Your task to perform on an android device: check out phone information Image 0: 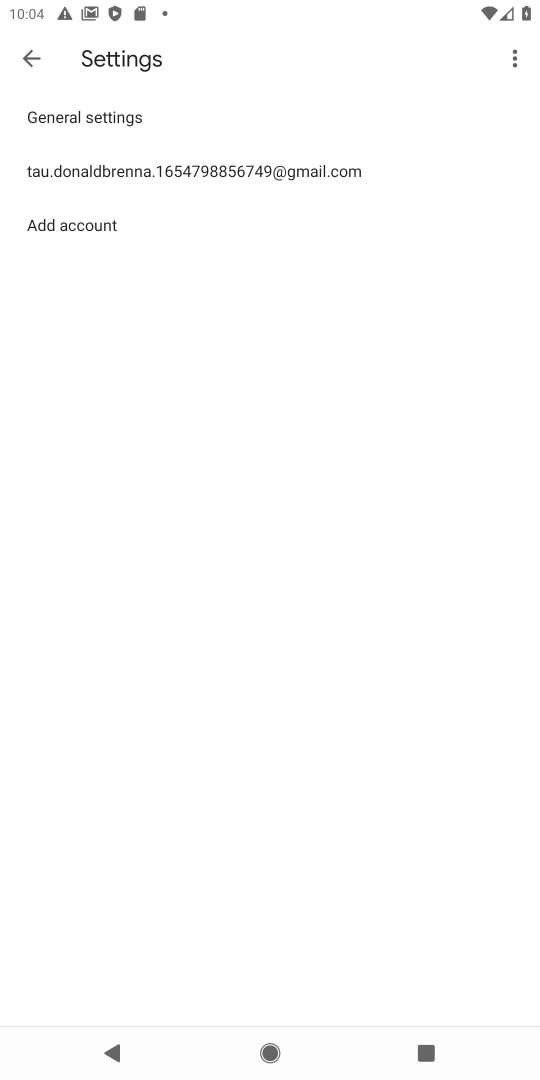
Step 0: press home button
Your task to perform on an android device: check out phone information Image 1: 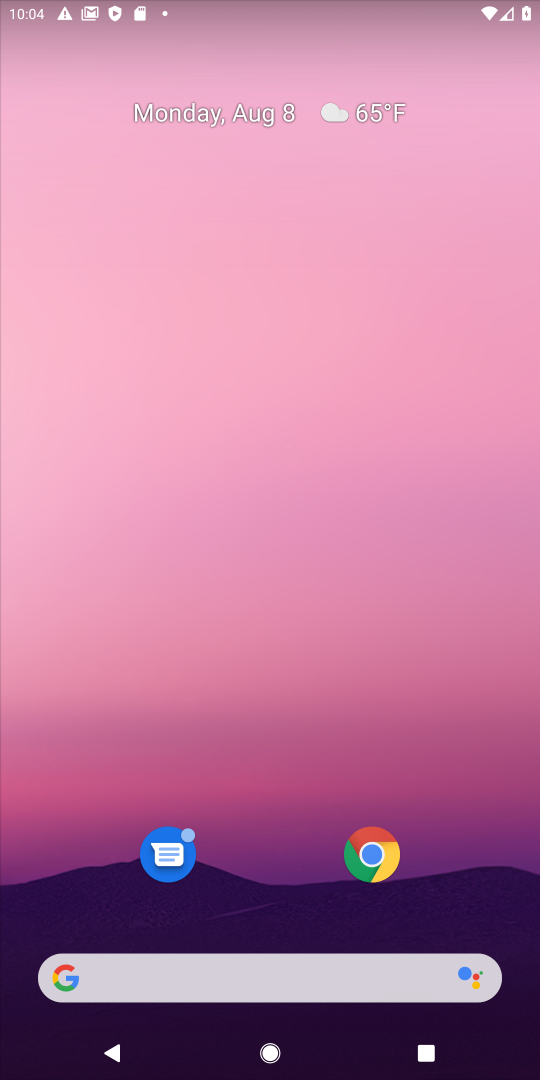
Step 1: drag from (236, 890) to (275, 18)
Your task to perform on an android device: check out phone information Image 2: 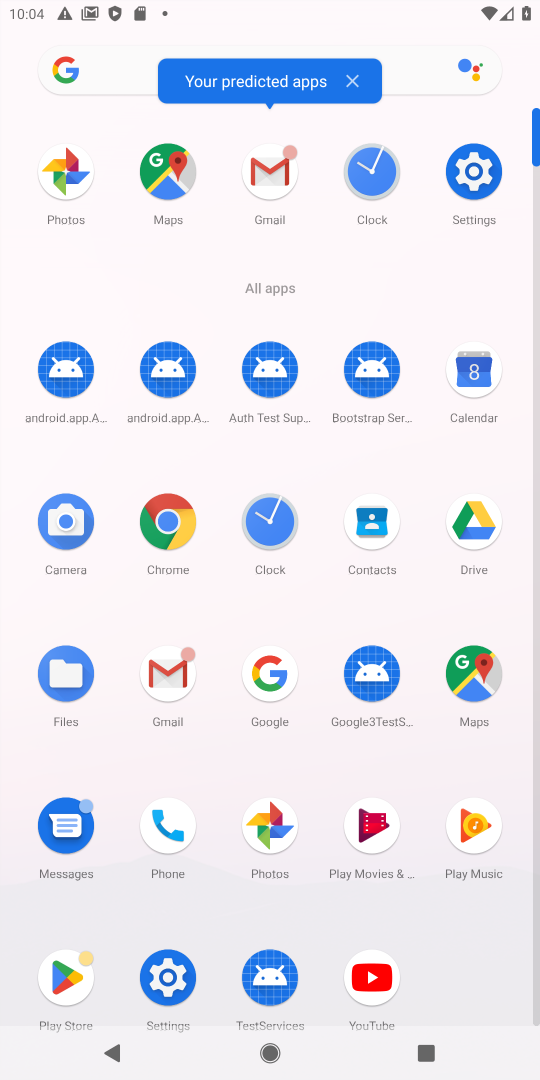
Step 2: click (482, 178)
Your task to perform on an android device: check out phone information Image 3: 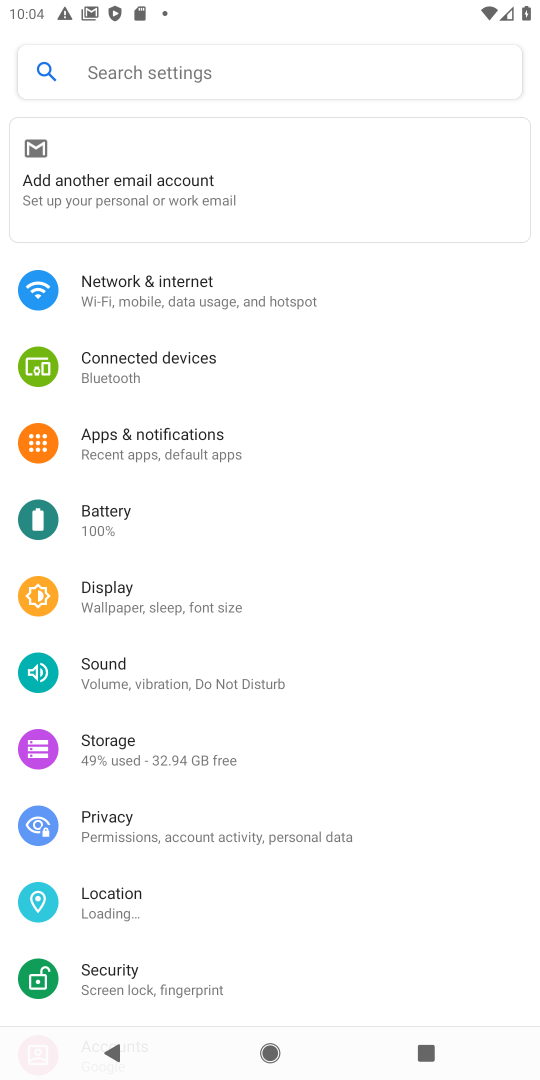
Step 3: drag from (147, 968) to (147, 140)
Your task to perform on an android device: check out phone information Image 4: 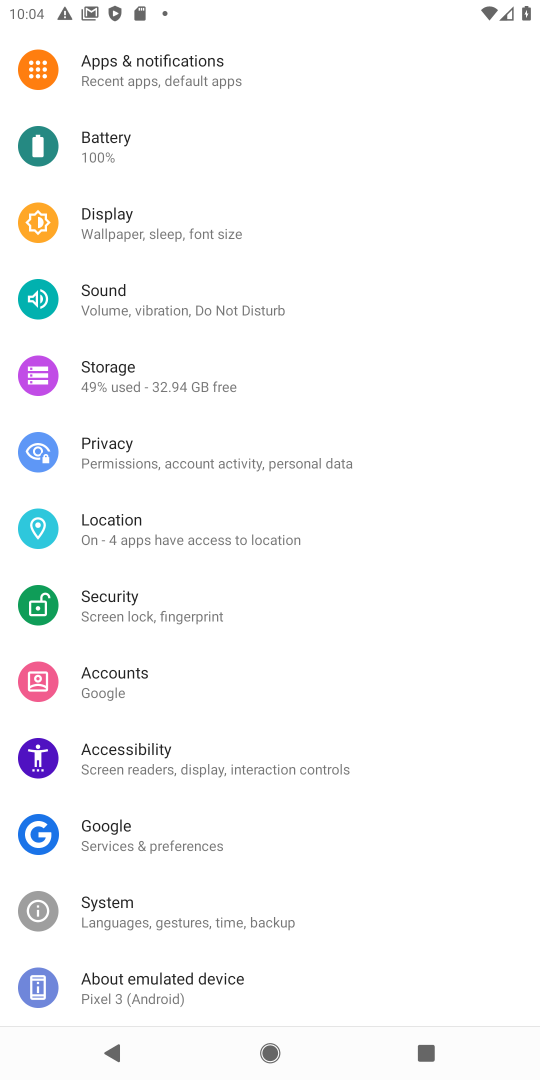
Step 4: drag from (207, 985) to (194, 65)
Your task to perform on an android device: check out phone information Image 5: 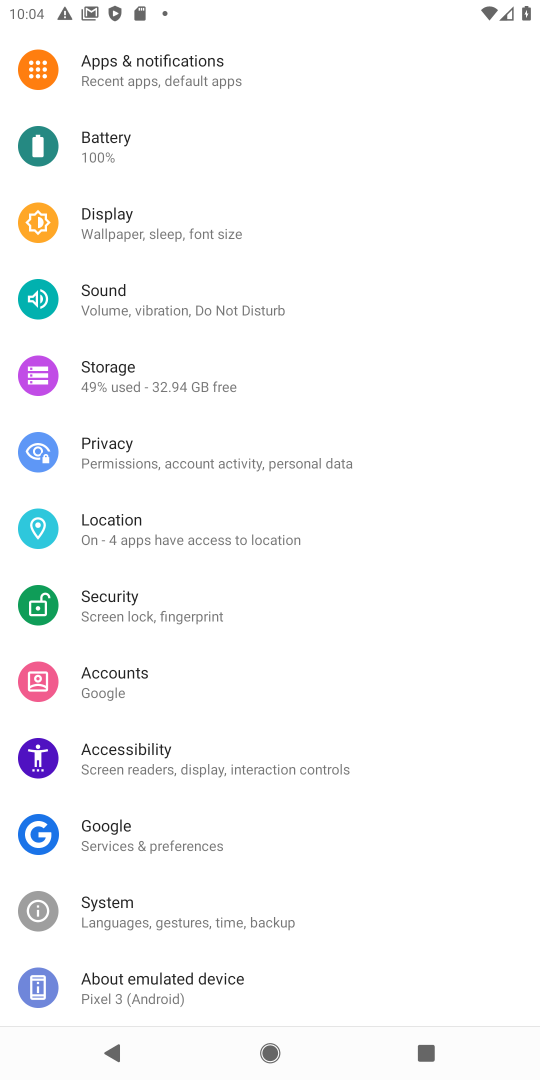
Step 5: click (225, 1007)
Your task to perform on an android device: check out phone information Image 6: 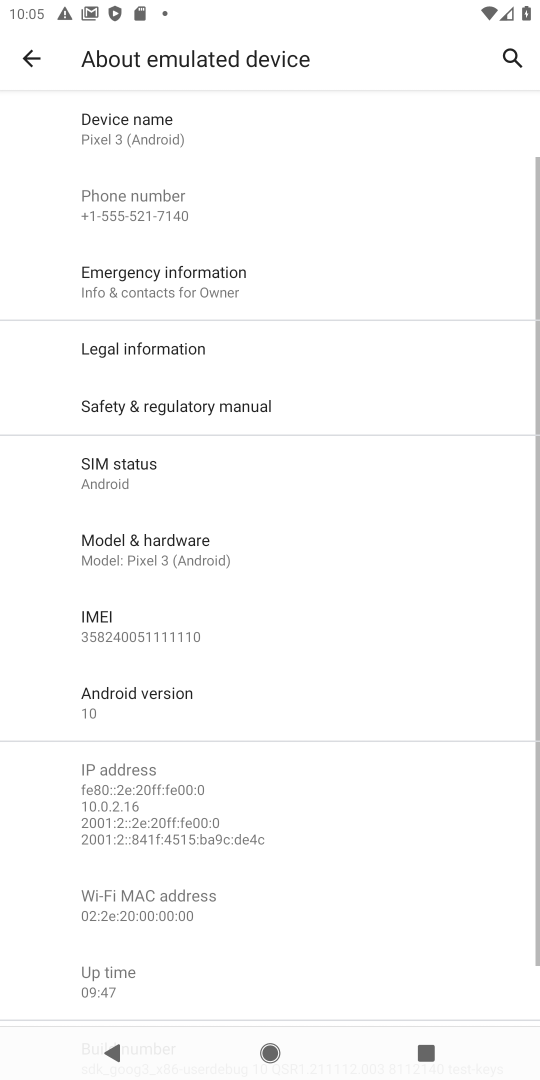
Step 6: task complete